Your task to perform on an android device: Do I have any events this weekend? Image 0: 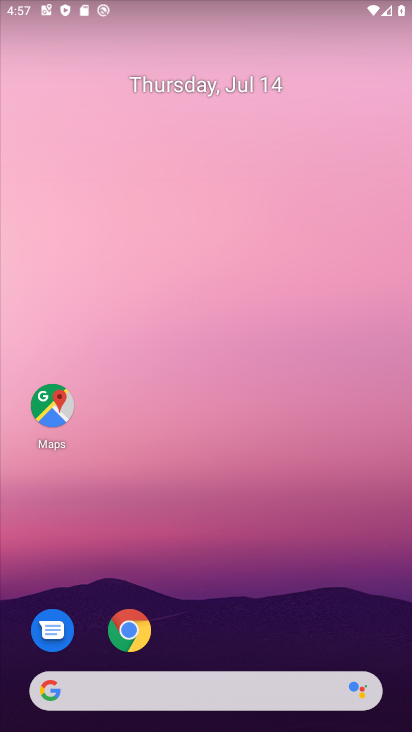
Step 0: drag from (317, 615) to (358, 45)
Your task to perform on an android device: Do I have any events this weekend? Image 1: 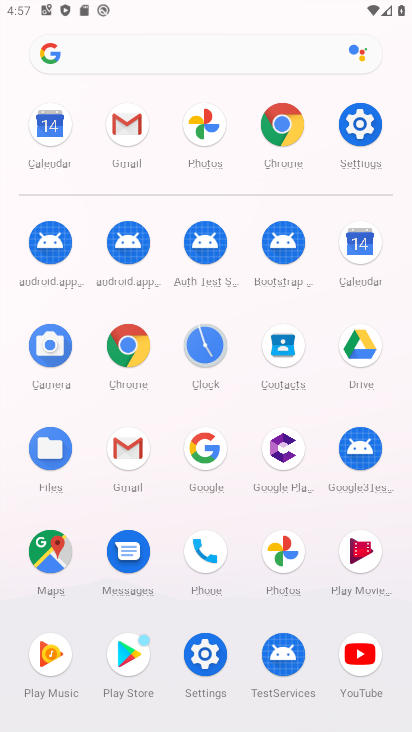
Step 1: click (361, 251)
Your task to perform on an android device: Do I have any events this weekend? Image 2: 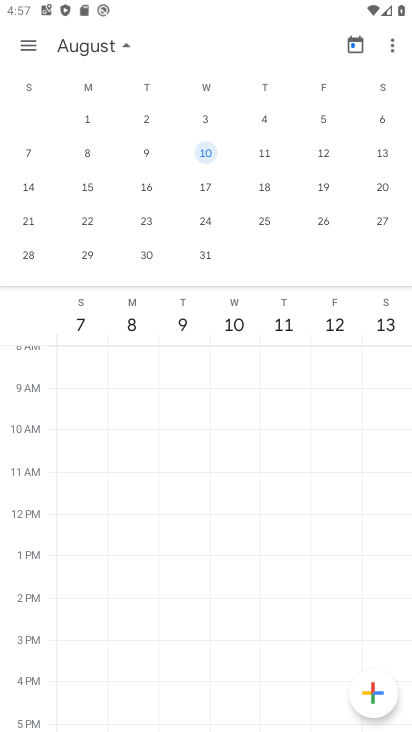
Step 2: drag from (26, 211) to (350, 229)
Your task to perform on an android device: Do I have any events this weekend? Image 3: 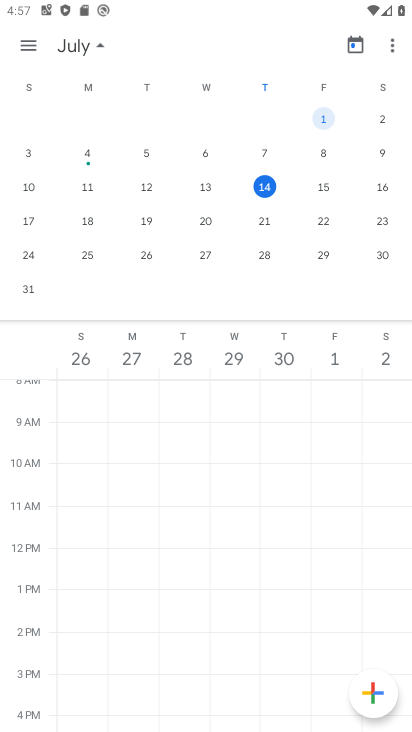
Step 3: click (383, 186)
Your task to perform on an android device: Do I have any events this weekend? Image 4: 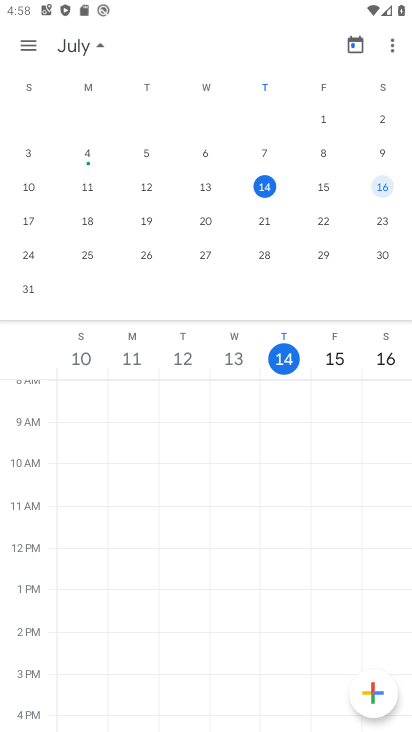
Step 4: task complete